Your task to perform on an android device: change alarm snooze length Image 0: 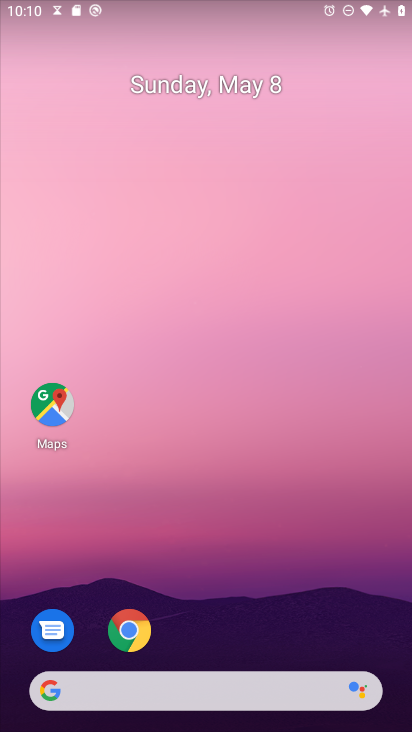
Step 0: drag from (207, 702) to (346, 194)
Your task to perform on an android device: change alarm snooze length Image 1: 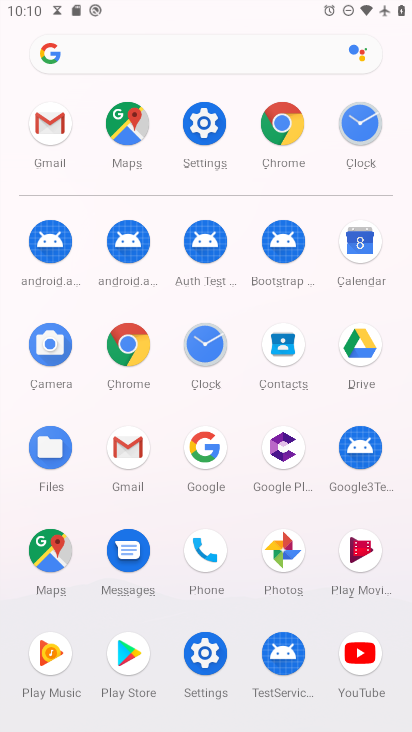
Step 1: click (369, 125)
Your task to perform on an android device: change alarm snooze length Image 2: 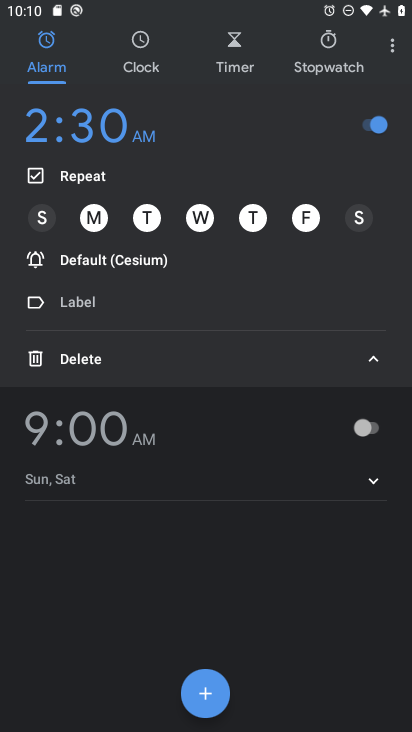
Step 2: click (393, 50)
Your task to perform on an android device: change alarm snooze length Image 3: 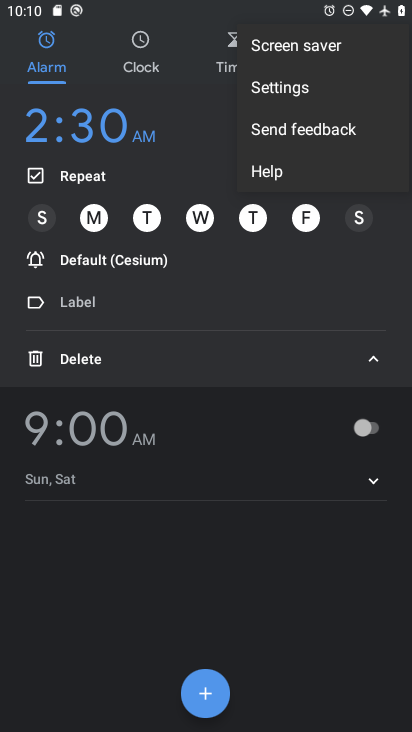
Step 3: click (307, 94)
Your task to perform on an android device: change alarm snooze length Image 4: 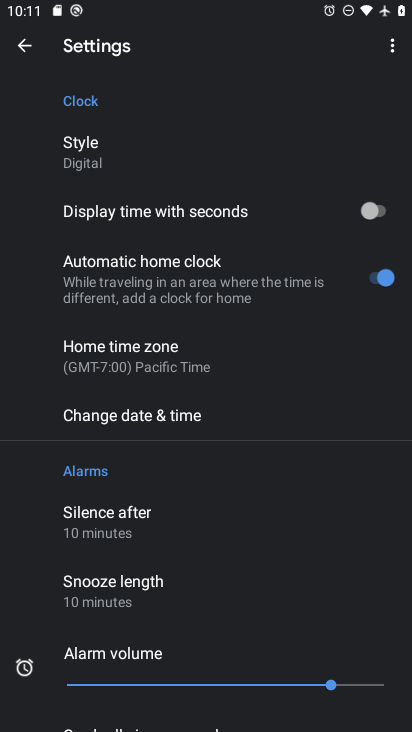
Step 4: click (133, 590)
Your task to perform on an android device: change alarm snooze length Image 5: 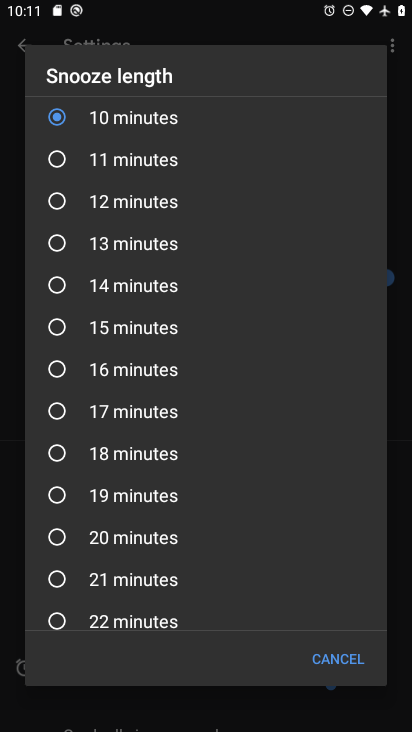
Step 5: click (58, 324)
Your task to perform on an android device: change alarm snooze length Image 6: 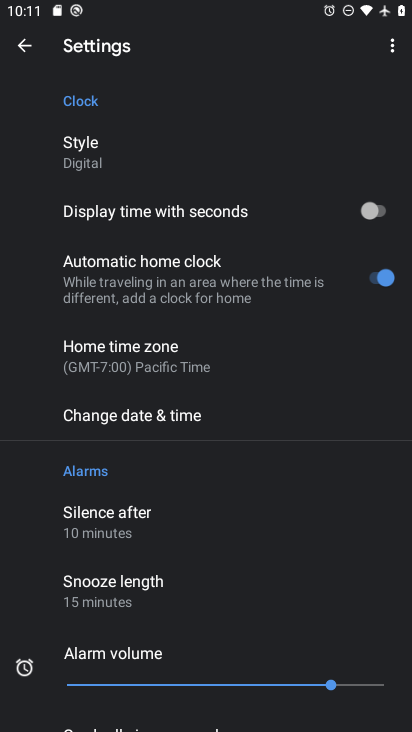
Step 6: task complete